Your task to perform on an android device: Look up the best selling patio furniture on Home Depot Image 0: 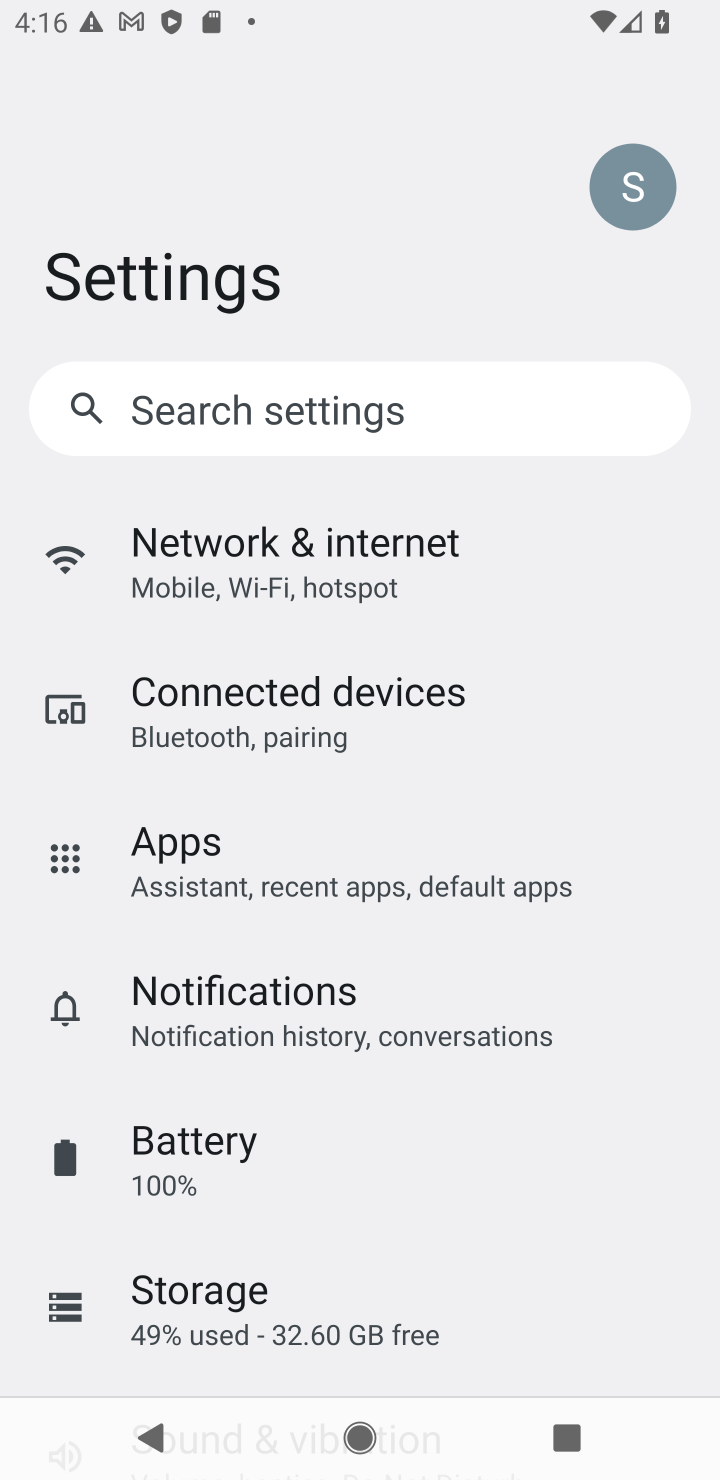
Step 0: press home button
Your task to perform on an android device: Look up the best selling patio furniture on Home Depot Image 1: 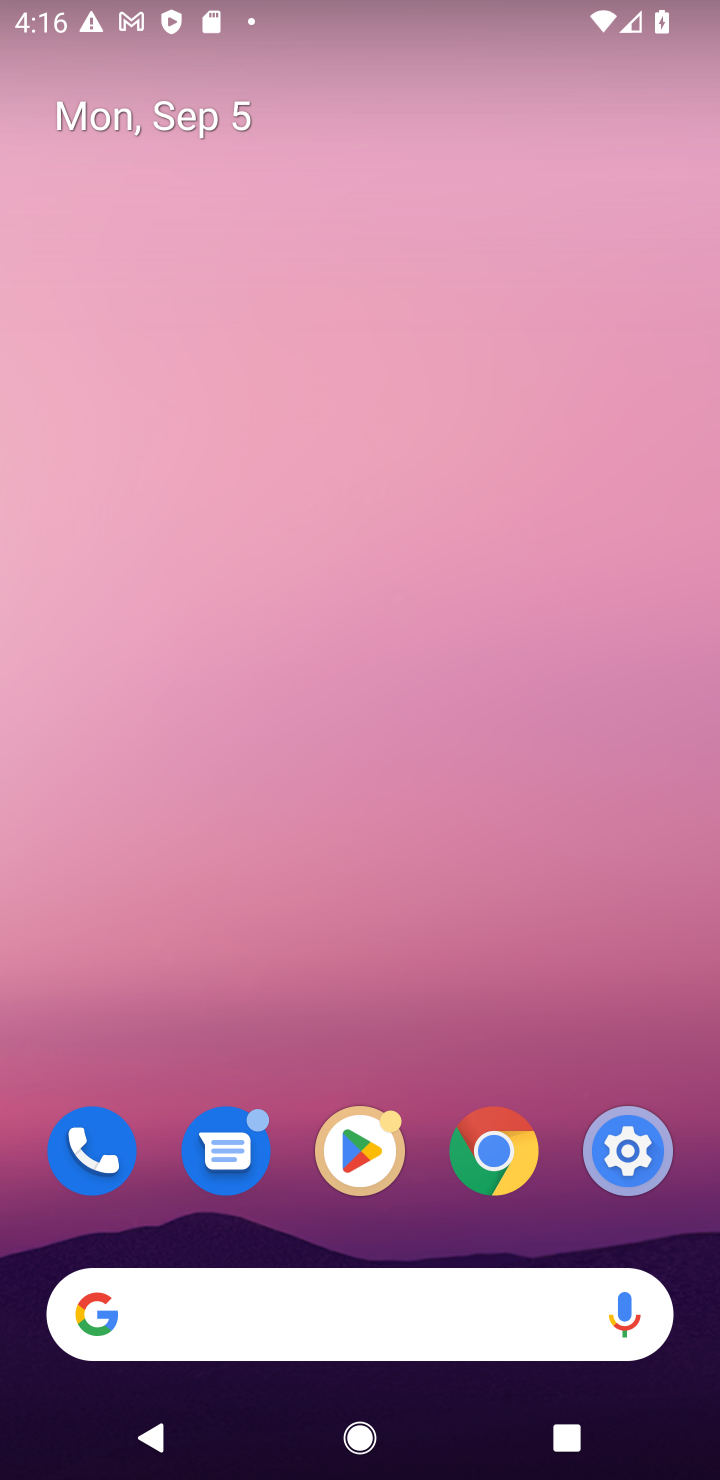
Step 1: drag from (435, 1161) to (456, 986)
Your task to perform on an android device: Look up the best selling patio furniture on Home Depot Image 2: 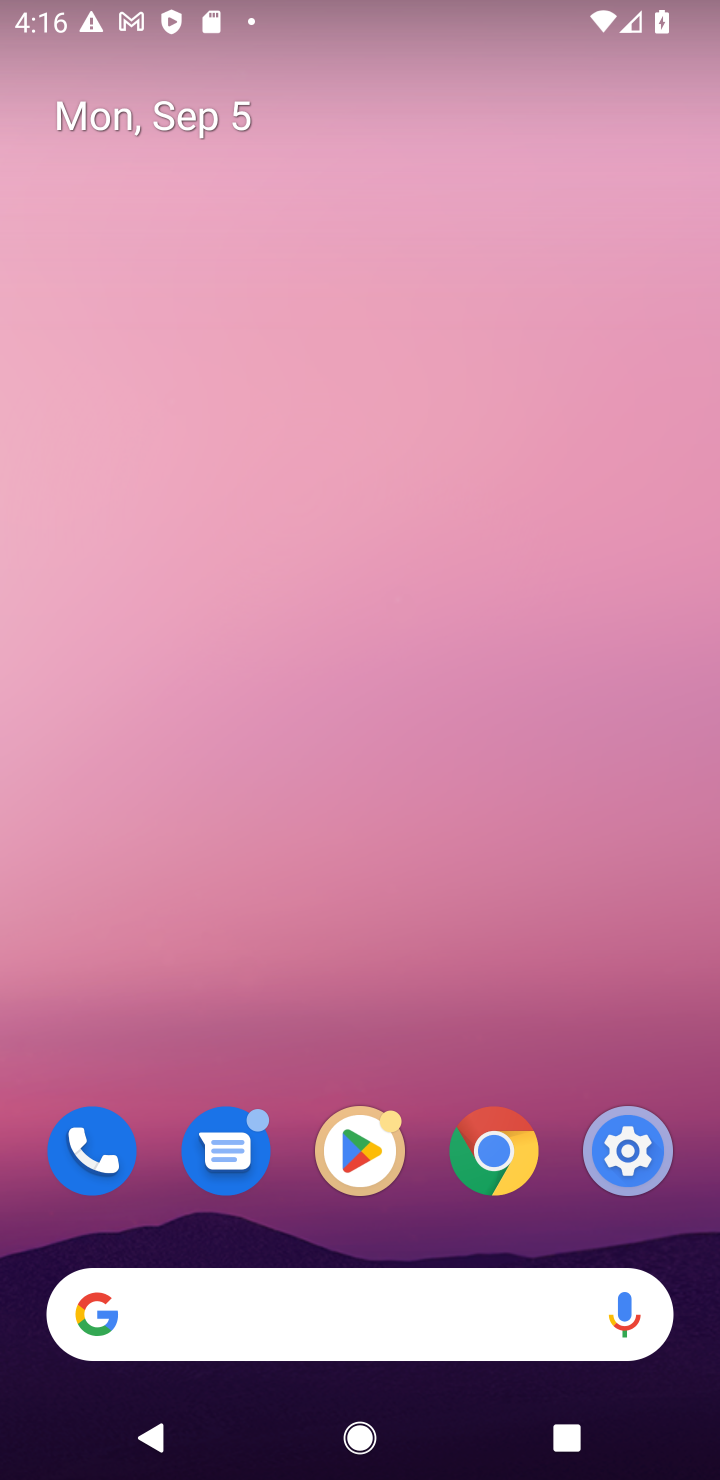
Step 2: drag from (447, 1267) to (418, 529)
Your task to perform on an android device: Look up the best selling patio furniture on Home Depot Image 3: 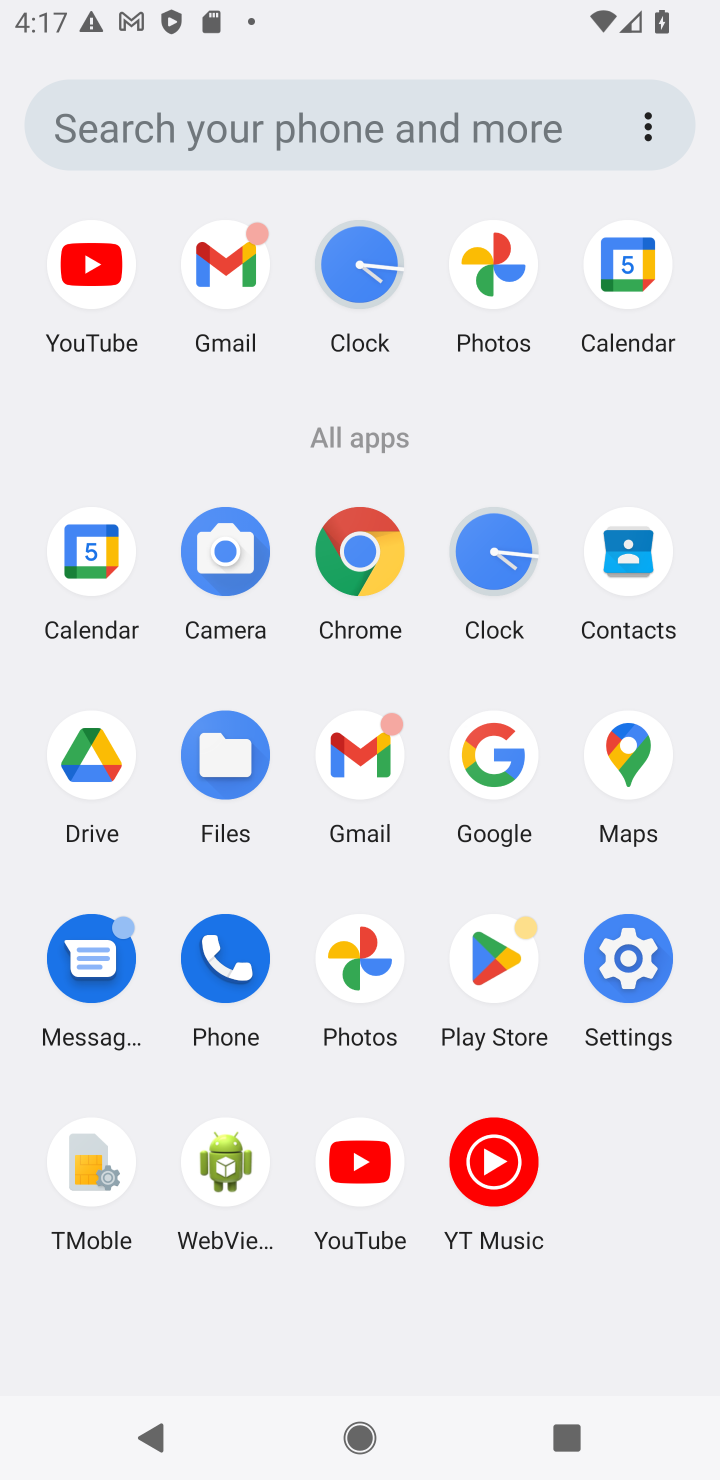
Step 3: click (359, 587)
Your task to perform on an android device: Look up the best selling patio furniture on Home Depot Image 4: 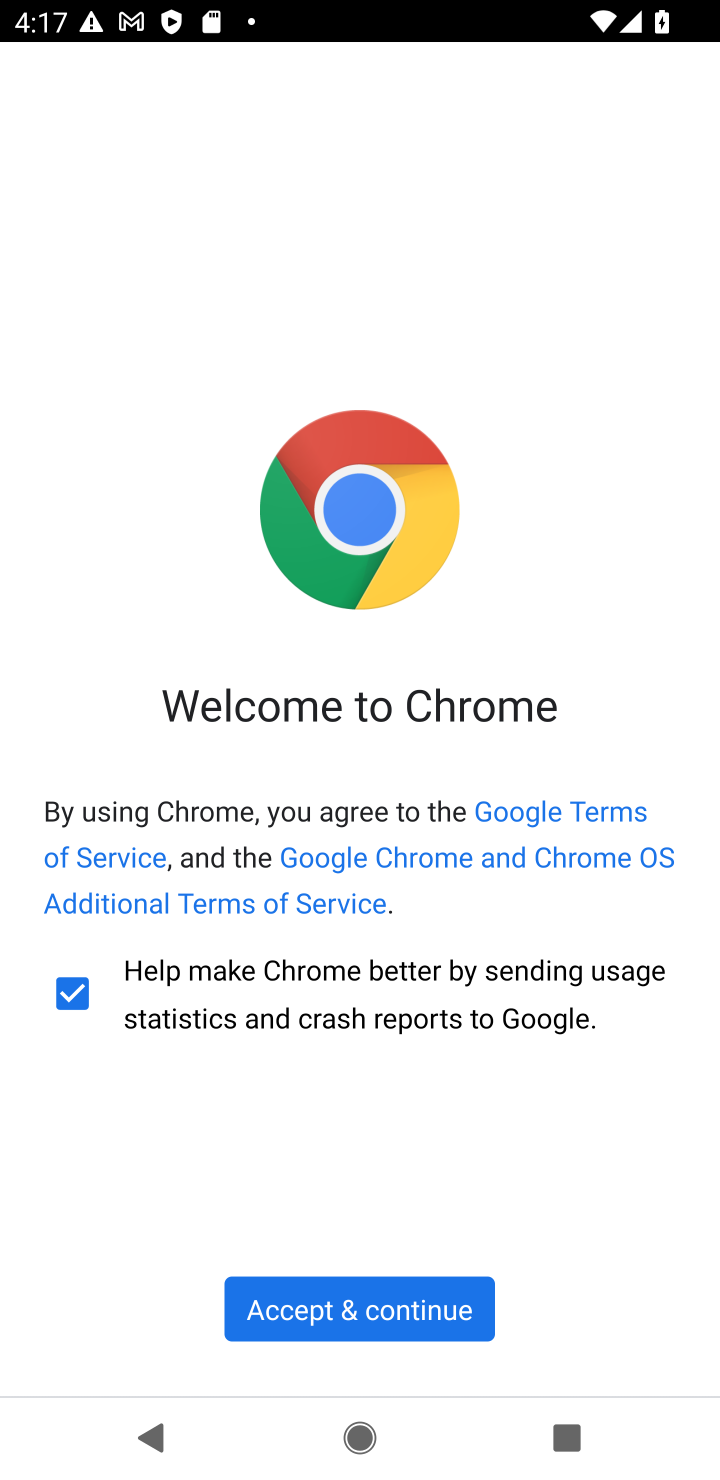
Step 4: click (369, 1324)
Your task to perform on an android device: Look up the best selling patio furniture on Home Depot Image 5: 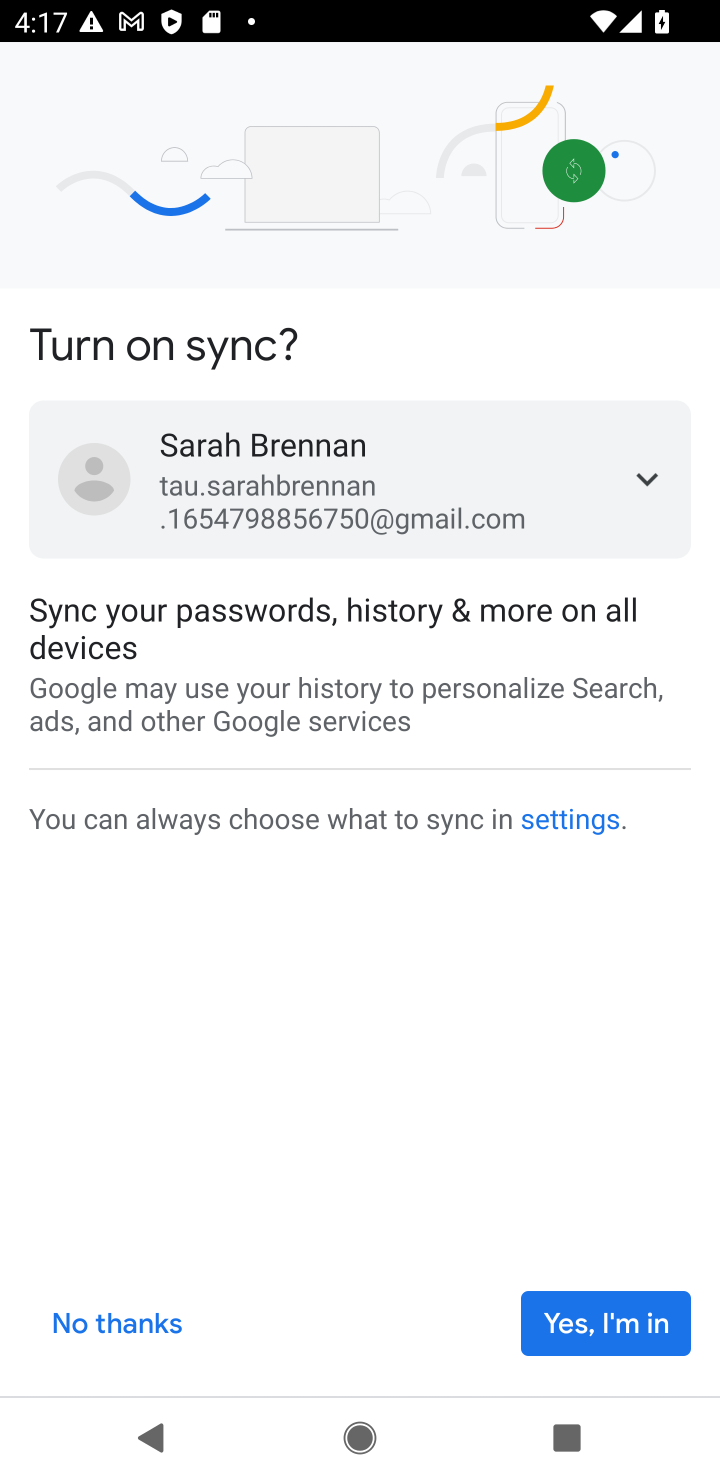
Step 5: click (557, 1331)
Your task to perform on an android device: Look up the best selling patio furniture on Home Depot Image 6: 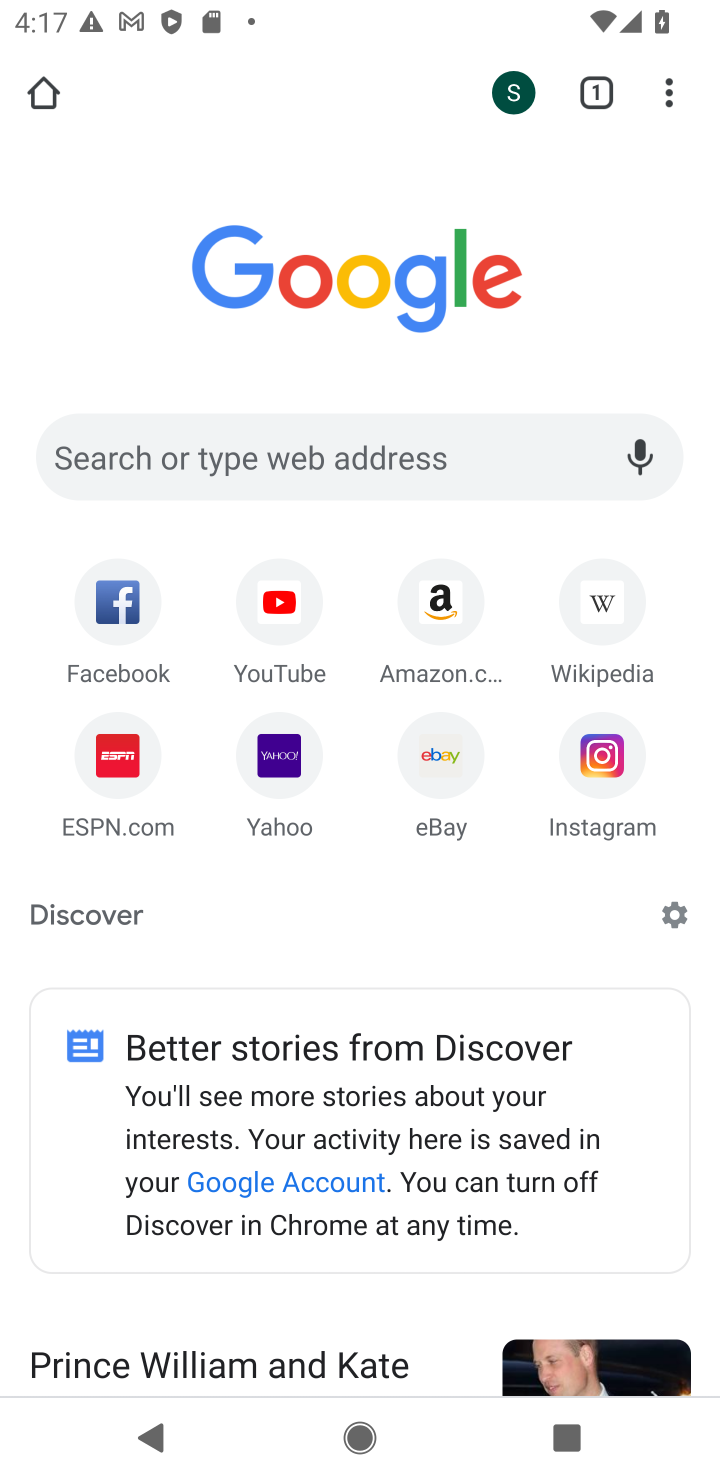
Step 6: click (329, 485)
Your task to perform on an android device: Look up the best selling patio furniture on Home Depot Image 7: 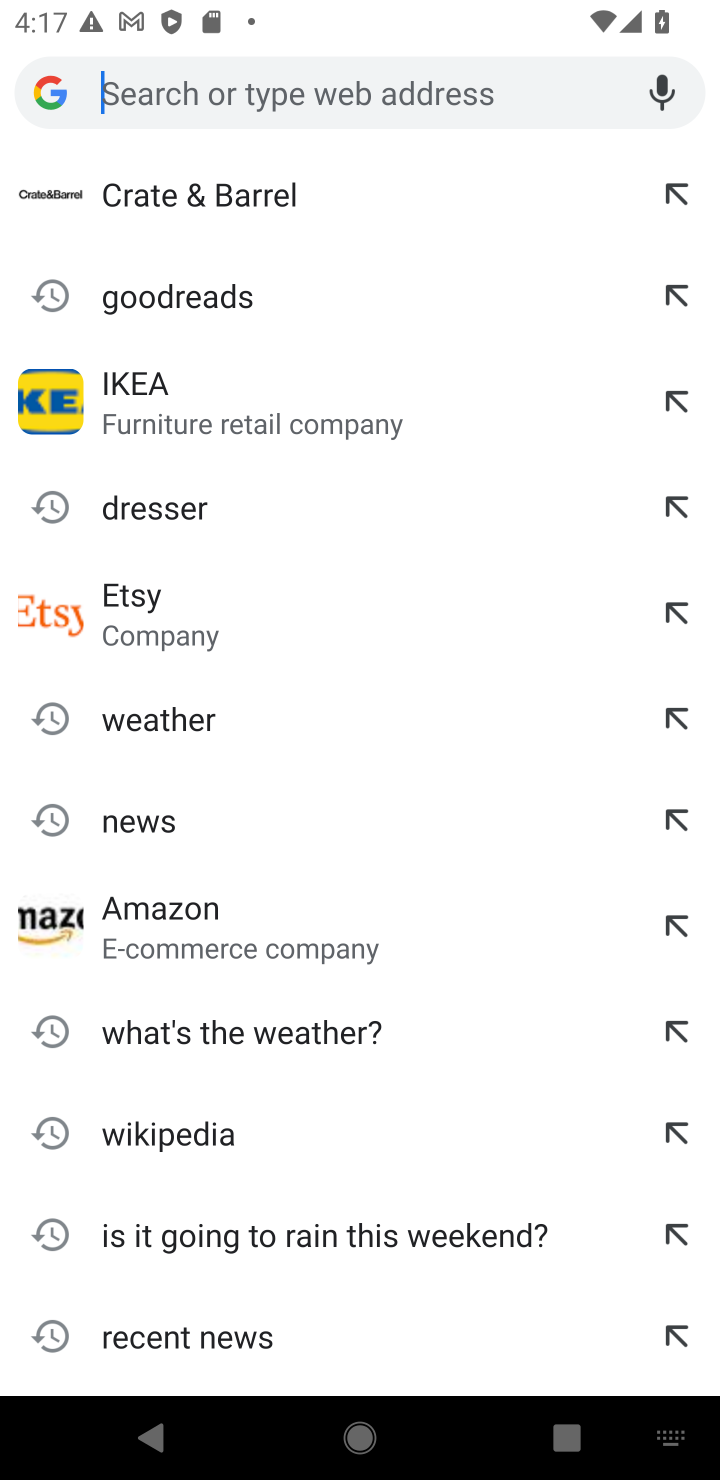
Step 7: type "home depot"
Your task to perform on an android device: Look up the best selling patio furniture on Home Depot Image 8: 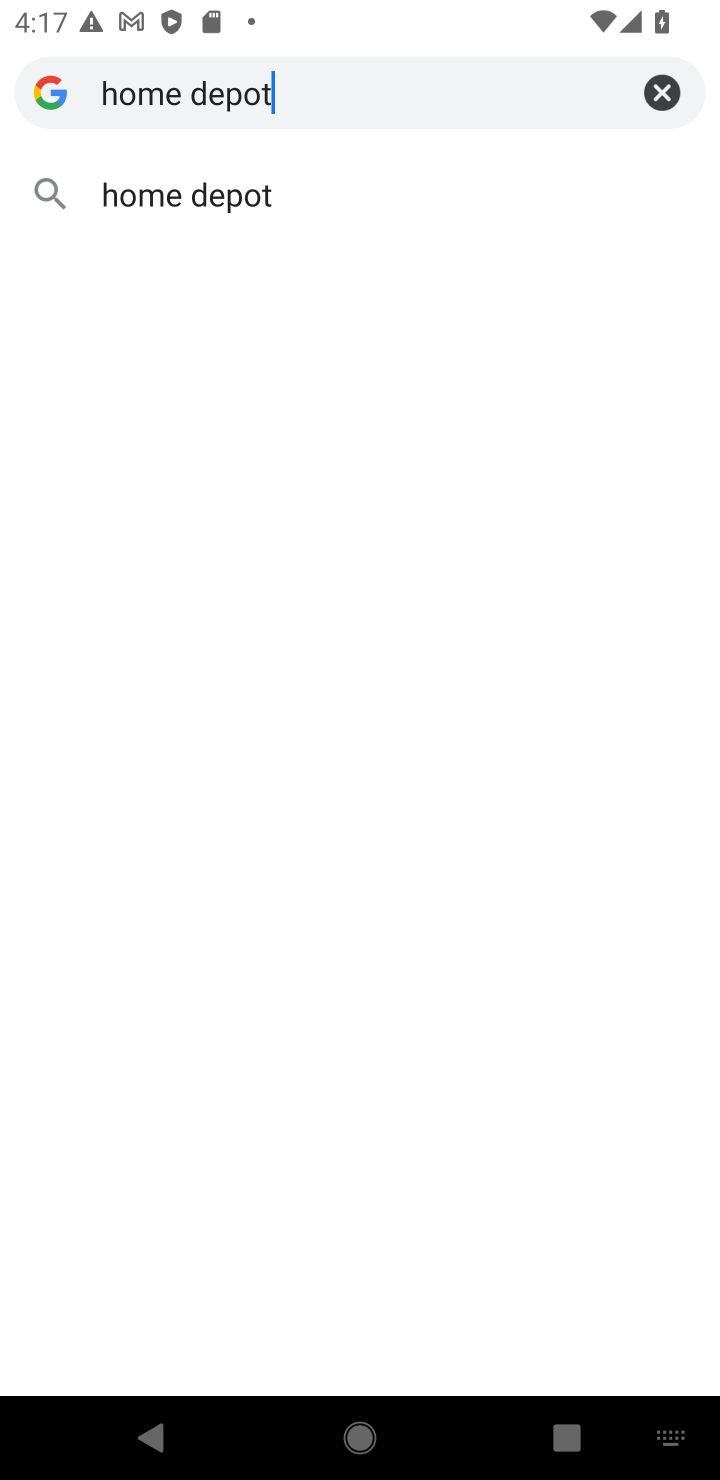
Step 8: click (291, 184)
Your task to perform on an android device: Look up the best selling patio furniture on Home Depot Image 9: 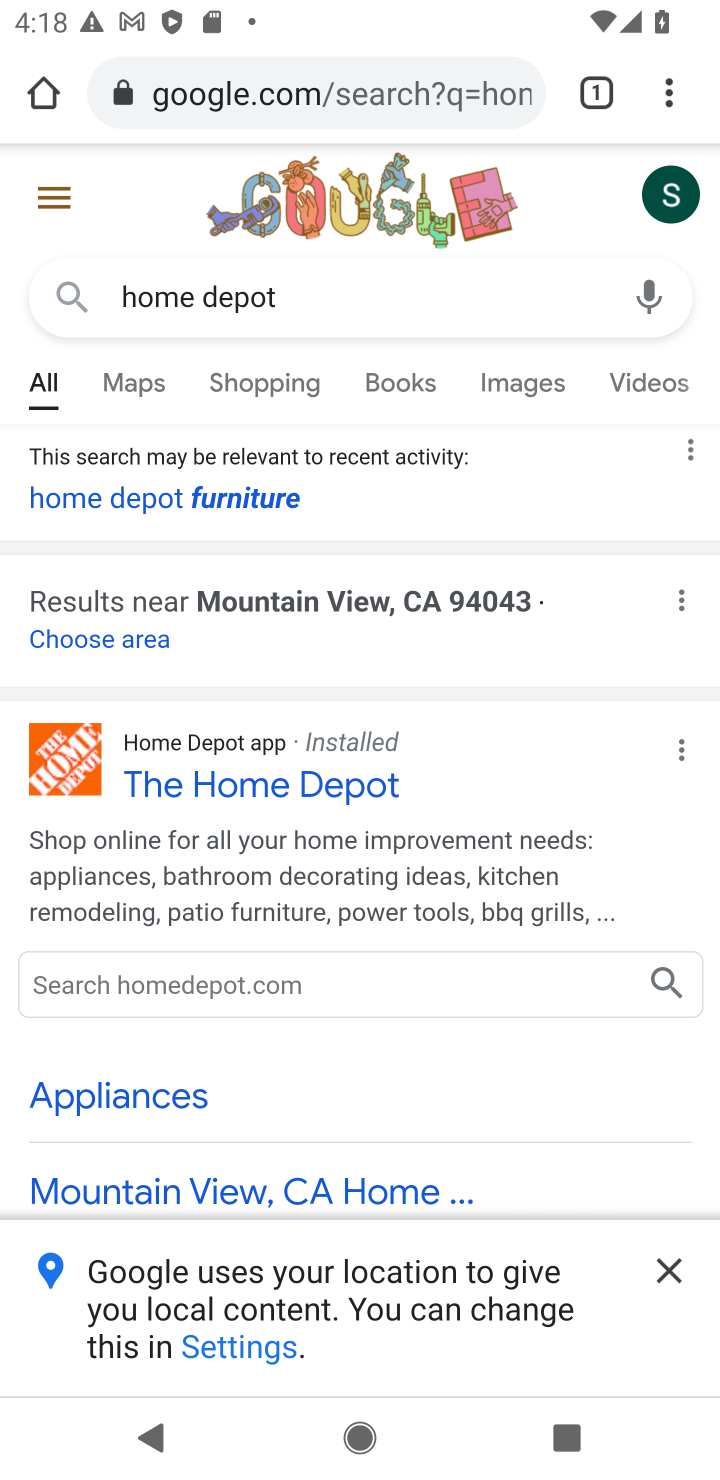
Step 9: click (362, 777)
Your task to perform on an android device: Look up the best selling patio furniture on Home Depot Image 10: 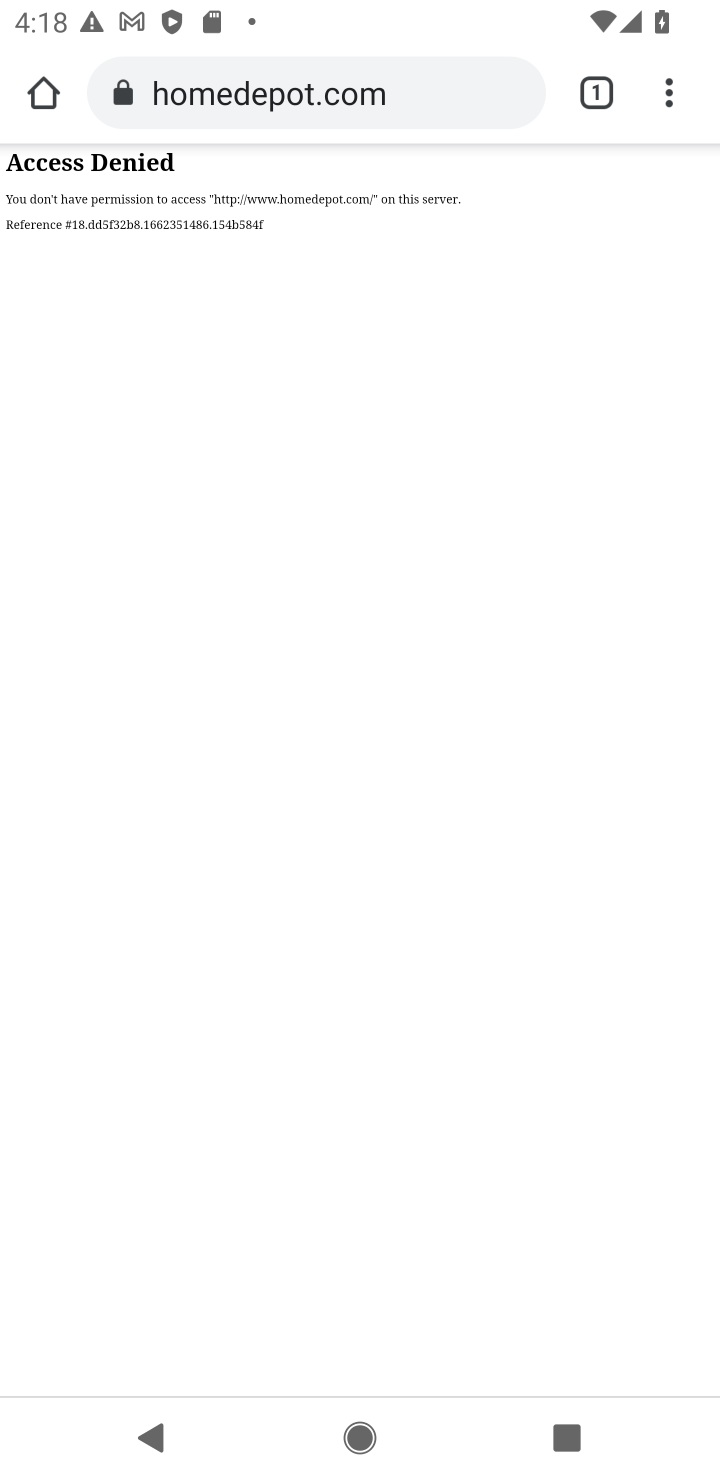
Step 10: task complete